Your task to perform on an android device: set default search engine in the chrome app Image 0: 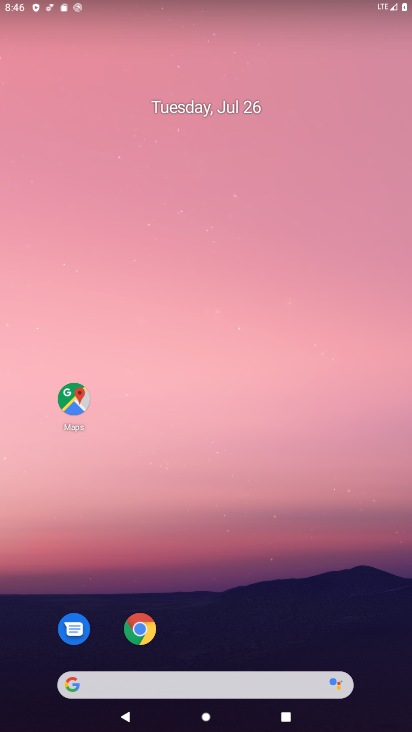
Step 0: click (155, 627)
Your task to perform on an android device: set default search engine in the chrome app Image 1: 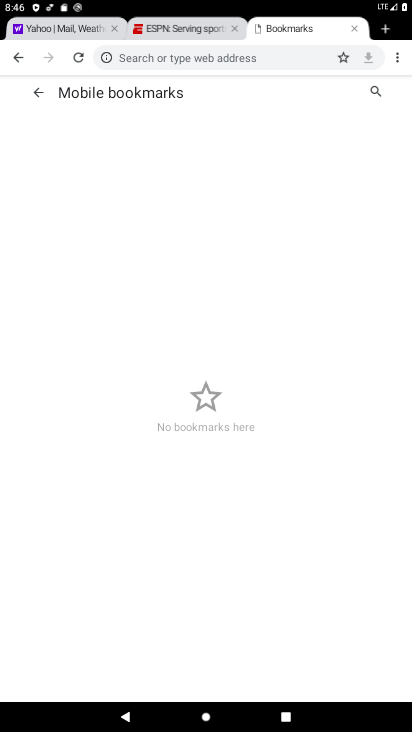
Step 1: click (393, 58)
Your task to perform on an android device: set default search engine in the chrome app Image 2: 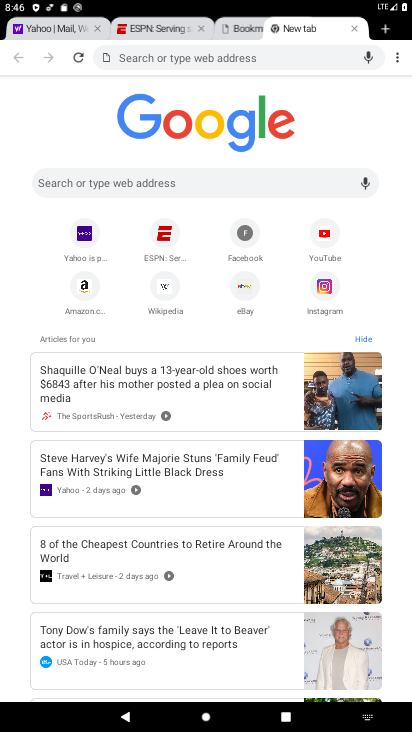
Step 2: drag from (394, 54) to (290, 251)
Your task to perform on an android device: set default search engine in the chrome app Image 3: 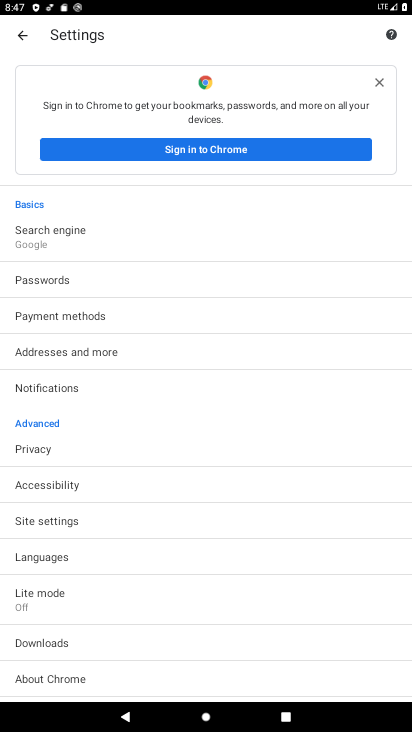
Step 3: click (32, 254)
Your task to perform on an android device: set default search engine in the chrome app Image 4: 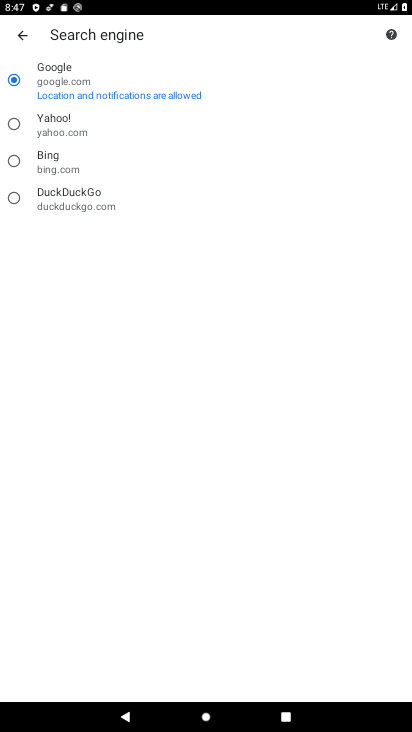
Step 4: click (43, 80)
Your task to perform on an android device: set default search engine in the chrome app Image 5: 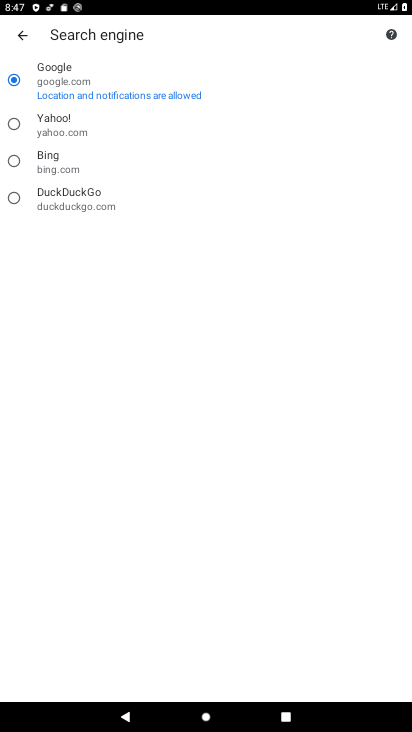
Step 5: task complete